Your task to perform on an android device: toggle priority inbox in the gmail app Image 0: 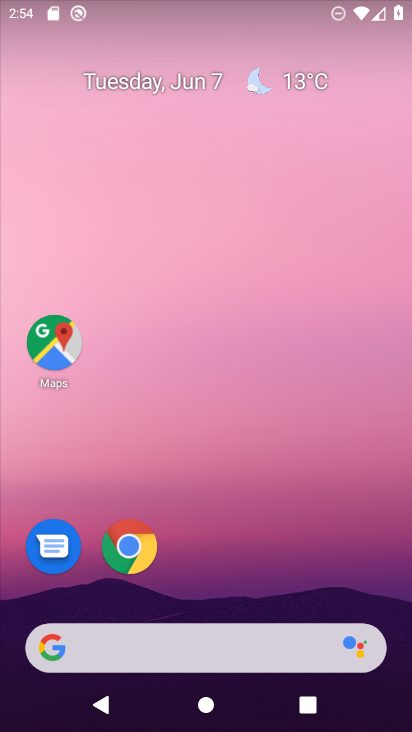
Step 0: drag from (272, 484) to (197, 0)
Your task to perform on an android device: toggle priority inbox in the gmail app Image 1: 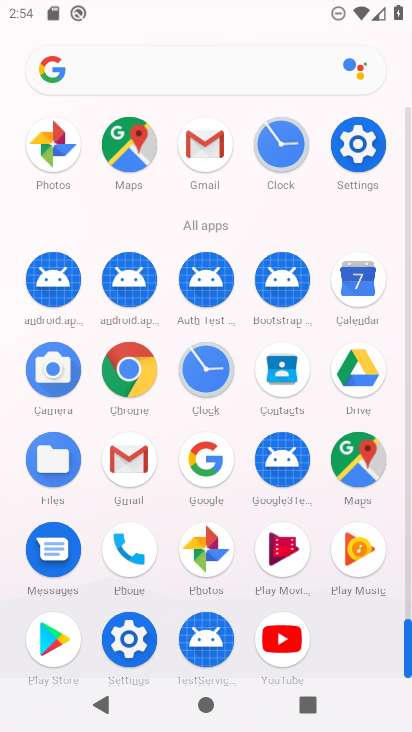
Step 1: drag from (4, 509) to (3, 206)
Your task to perform on an android device: toggle priority inbox in the gmail app Image 2: 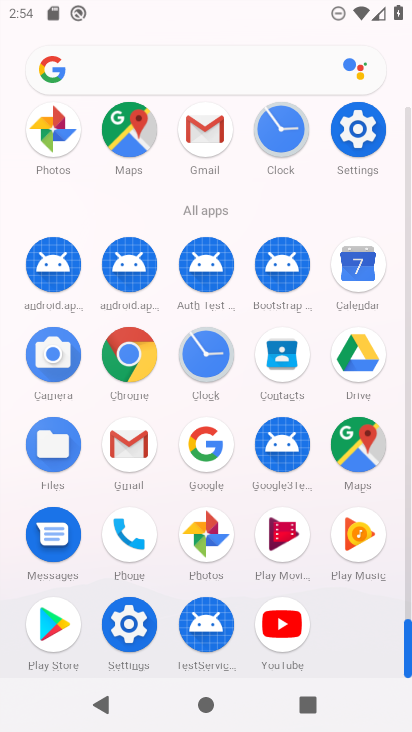
Step 2: click (121, 444)
Your task to perform on an android device: toggle priority inbox in the gmail app Image 3: 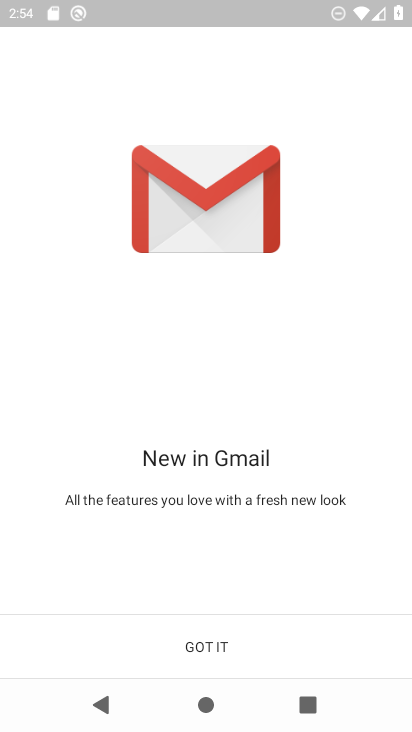
Step 3: click (193, 659)
Your task to perform on an android device: toggle priority inbox in the gmail app Image 4: 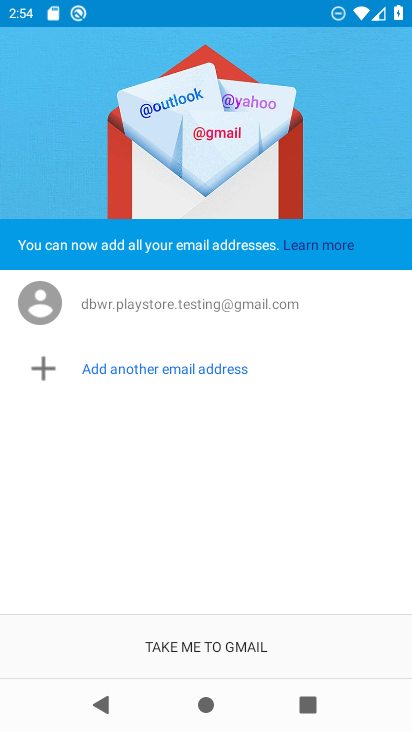
Step 4: click (195, 644)
Your task to perform on an android device: toggle priority inbox in the gmail app Image 5: 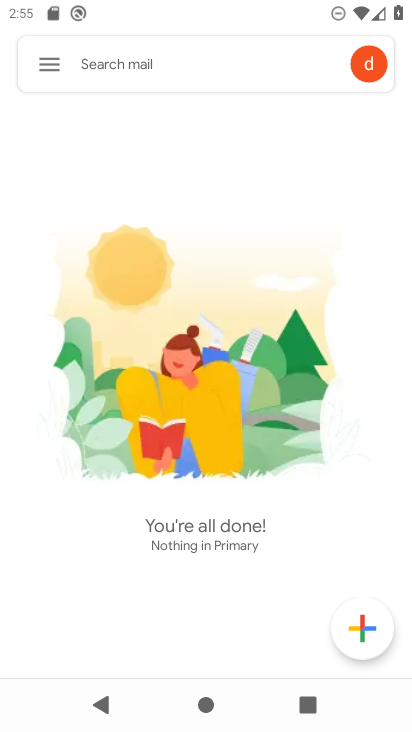
Step 5: click (47, 62)
Your task to perform on an android device: toggle priority inbox in the gmail app Image 6: 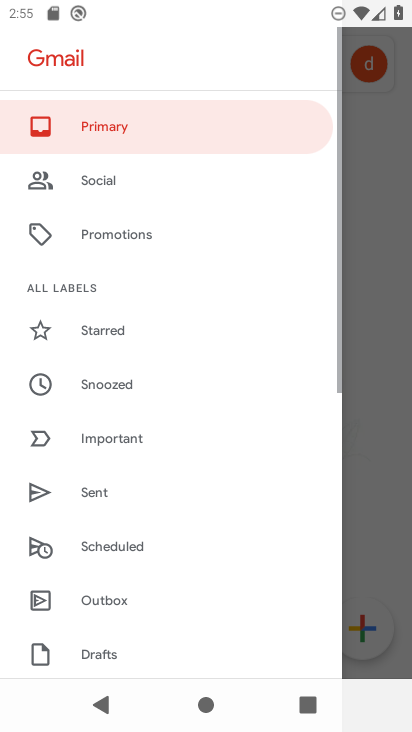
Step 6: drag from (182, 617) to (227, 161)
Your task to perform on an android device: toggle priority inbox in the gmail app Image 7: 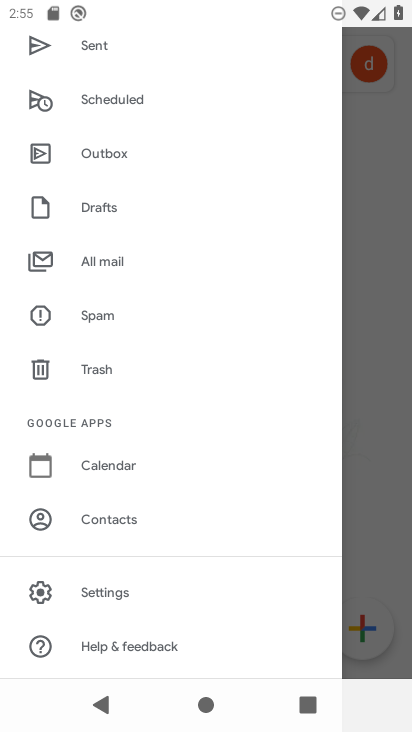
Step 7: click (128, 598)
Your task to perform on an android device: toggle priority inbox in the gmail app Image 8: 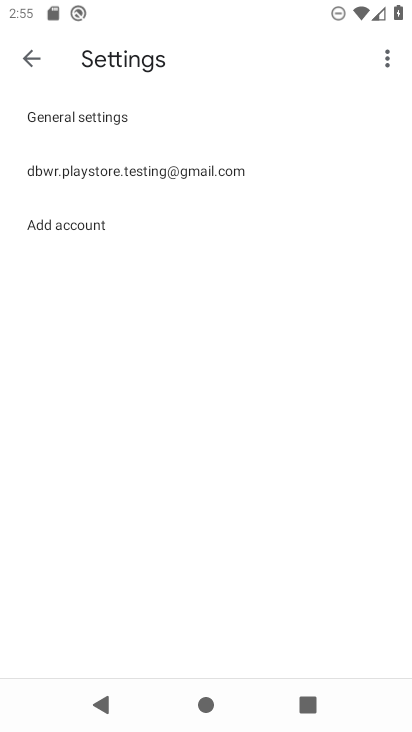
Step 8: click (161, 159)
Your task to perform on an android device: toggle priority inbox in the gmail app Image 9: 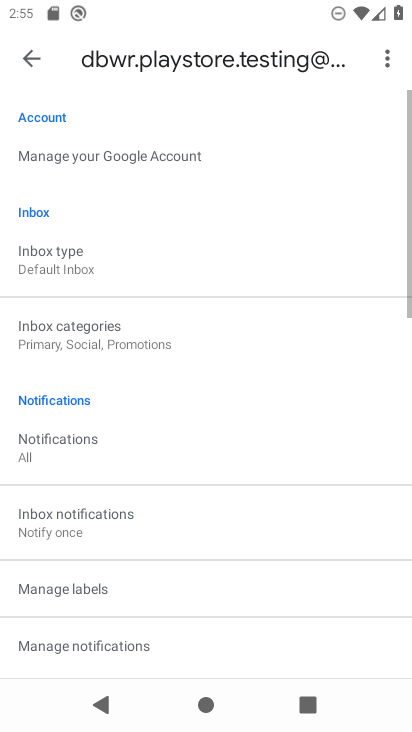
Step 9: click (121, 270)
Your task to perform on an android device: toggle priority inbox in the gmail app Image 10: 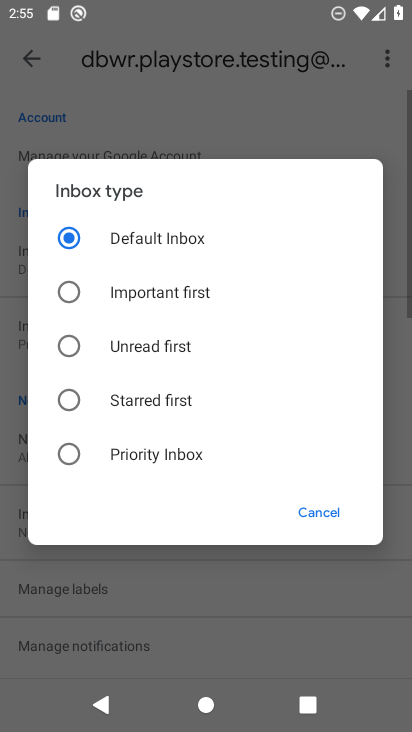
Step 10: click (170, 459)
Your task to perform on an android device: toggle priority inbox in the gmail app Image 11: 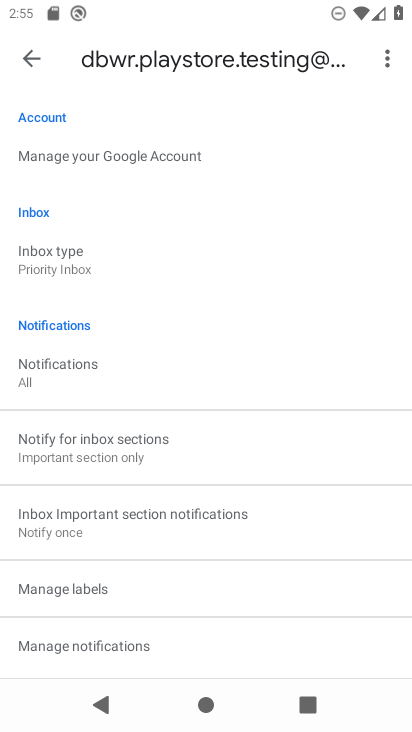
Step 11: task complete